Your task to perform on an android device: all mails in gmail Image 0: 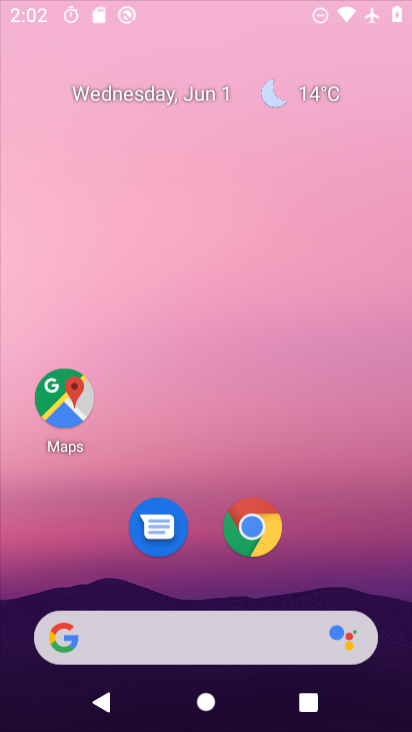
Step 0: click (221, 89)
Your task to perform on an android device: all mails in gmail Image 1: 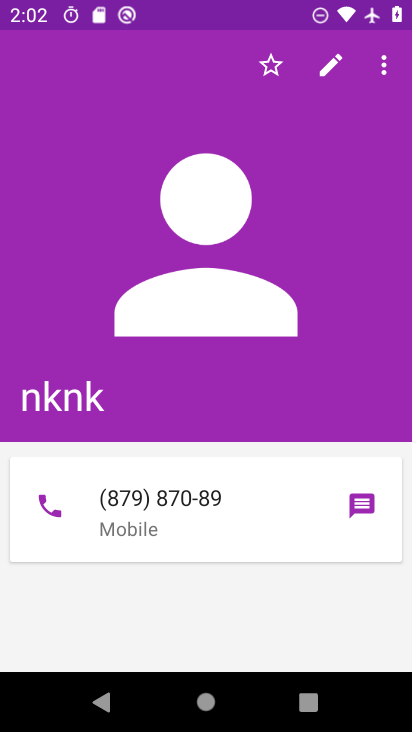
Step 1: press home button
Your task to perform on an android device: all mails in gmail Image 2: 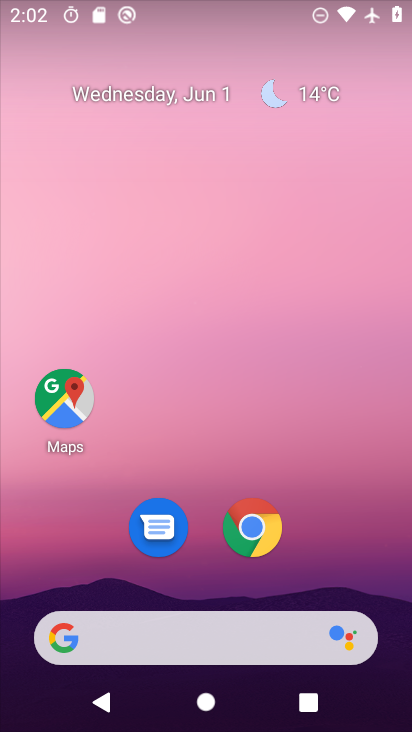
Step 2: drag from (212, 595) to (241, 11)
Your task to perform on an android device: all mails in gmail Image 3: 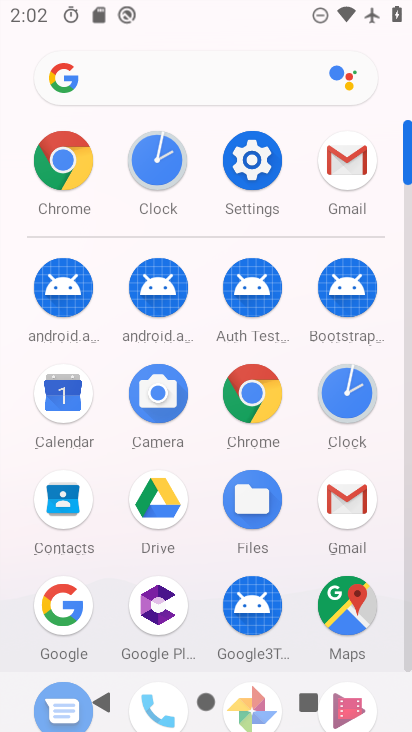
Step 3: click (353, 539)
Your task to perform on an android device: all mails in gmail Image 4: 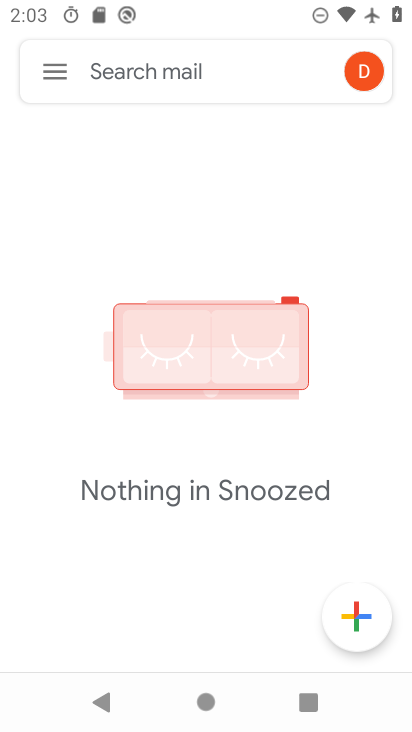
Step 4: click (48, 77)
Your task to perform on an android device: all mails in gmail Image 5: 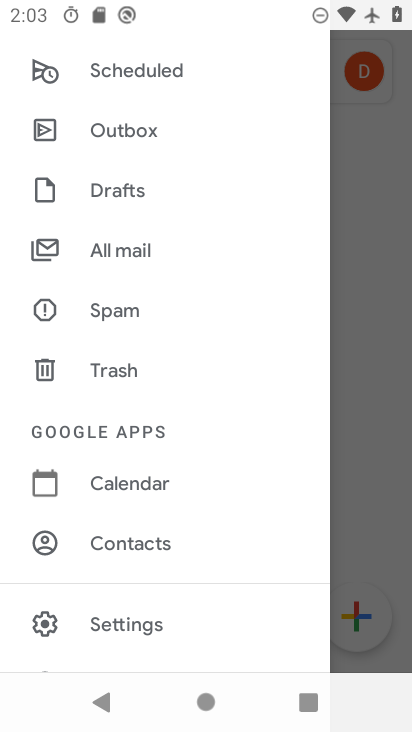
Step 5: click (116, 252)
Your task to perform on an android device: all mails in gmail Image 6: 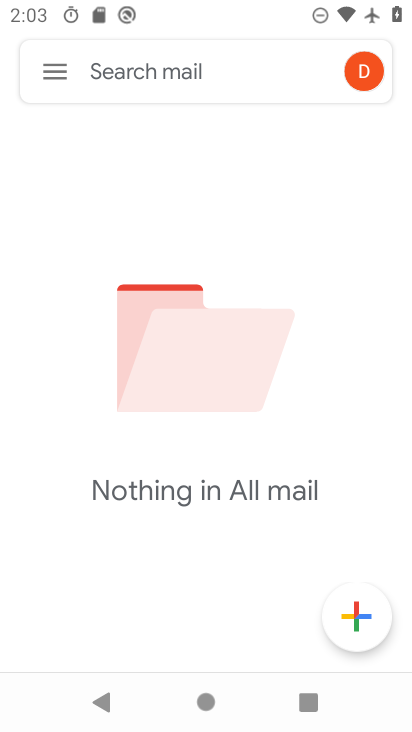
Step 6: task complete